Your task to perform on an android device: turn off location history Image 0: 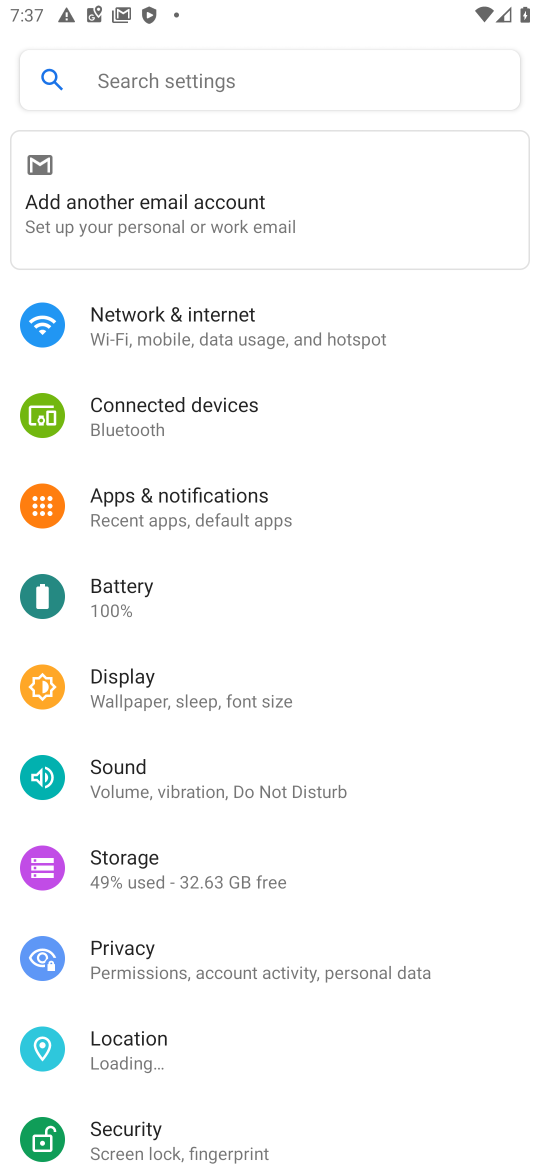
Step 0: press home button
Your task to perform on an android device: turn off location history Image 1: 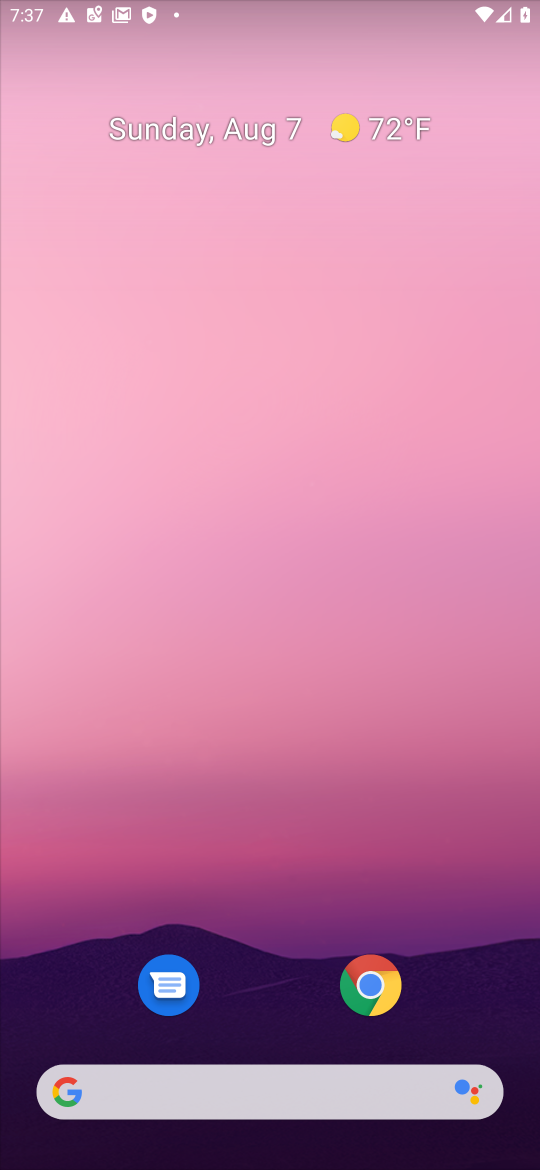
Step 1: drag from (229, 1032) to (316, 361)
Your task to perform on an android device: turn off location history Image 2: 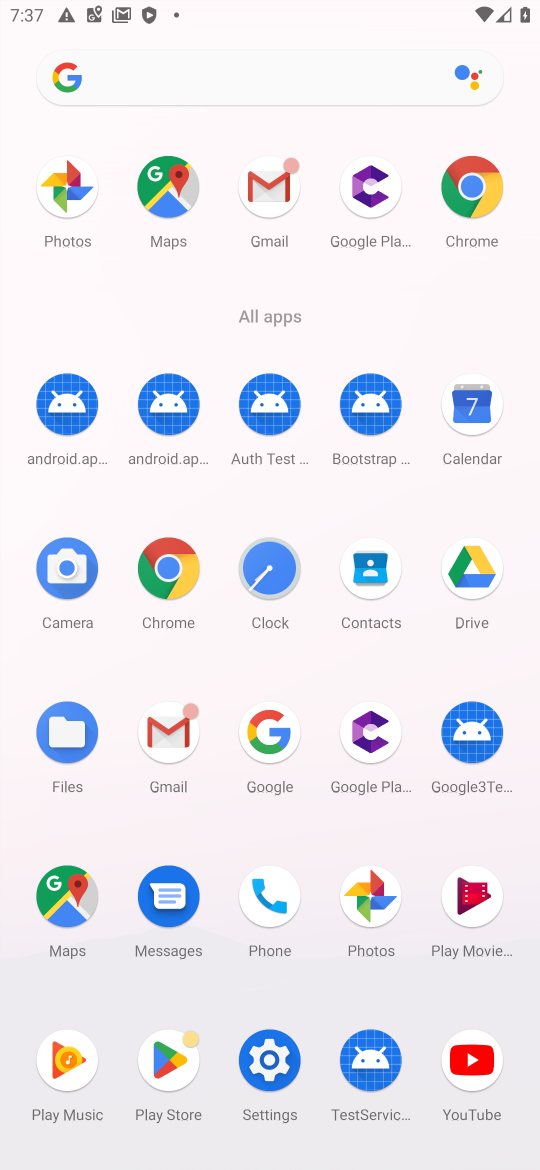
Step 2: click (274, 1082)
Your task to perform on an android device: turn off location history Image 3: 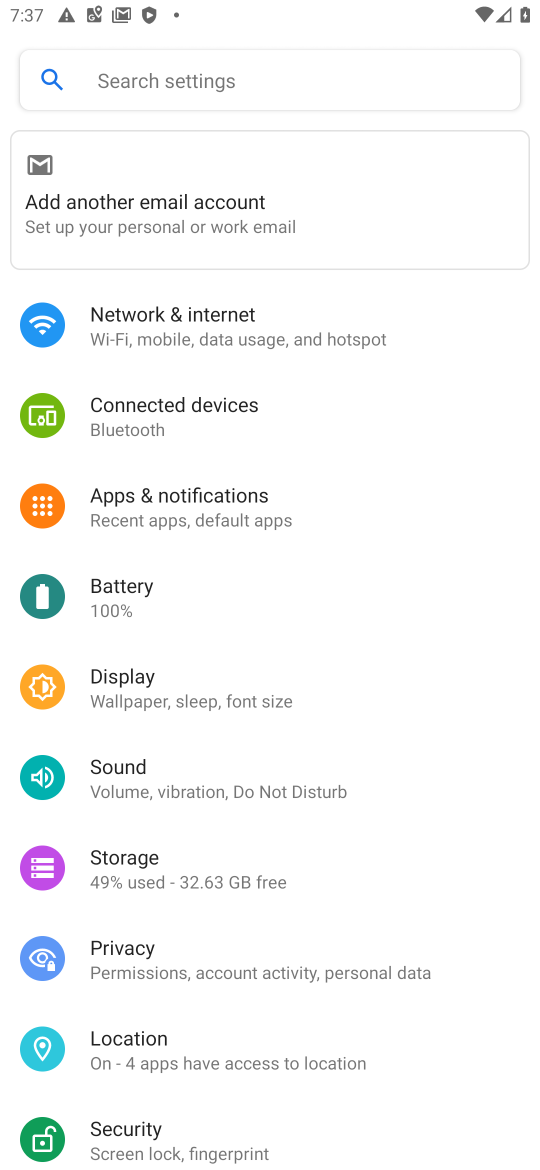
Step 3: click (145, 1062)
Your task to perform on an android device: turn off location history Image 4: 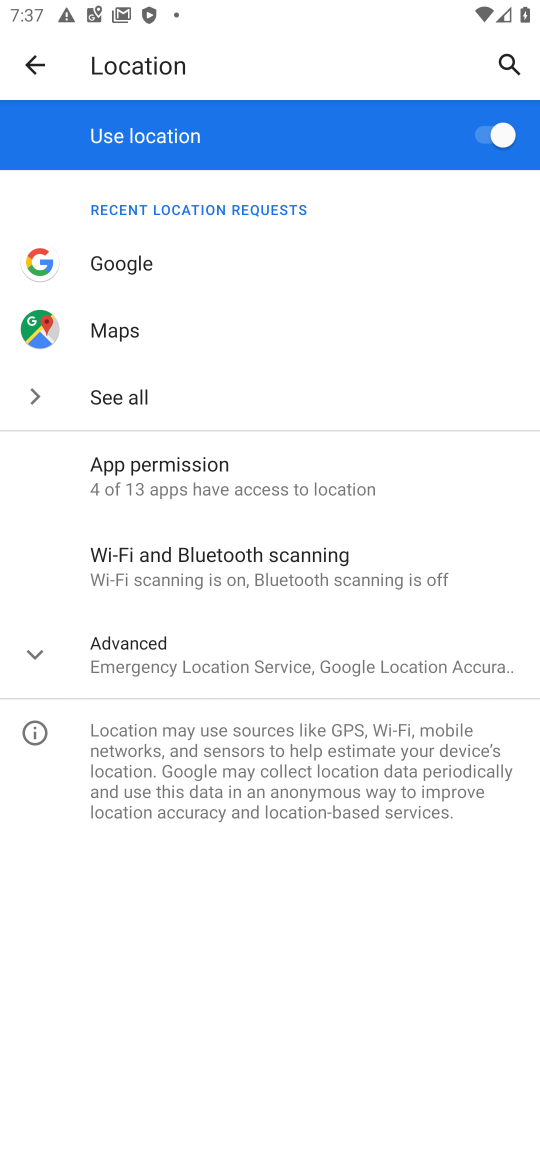
Step 4: click (201, 650)
Your task to perform on an android device: turn off location history Image 5: 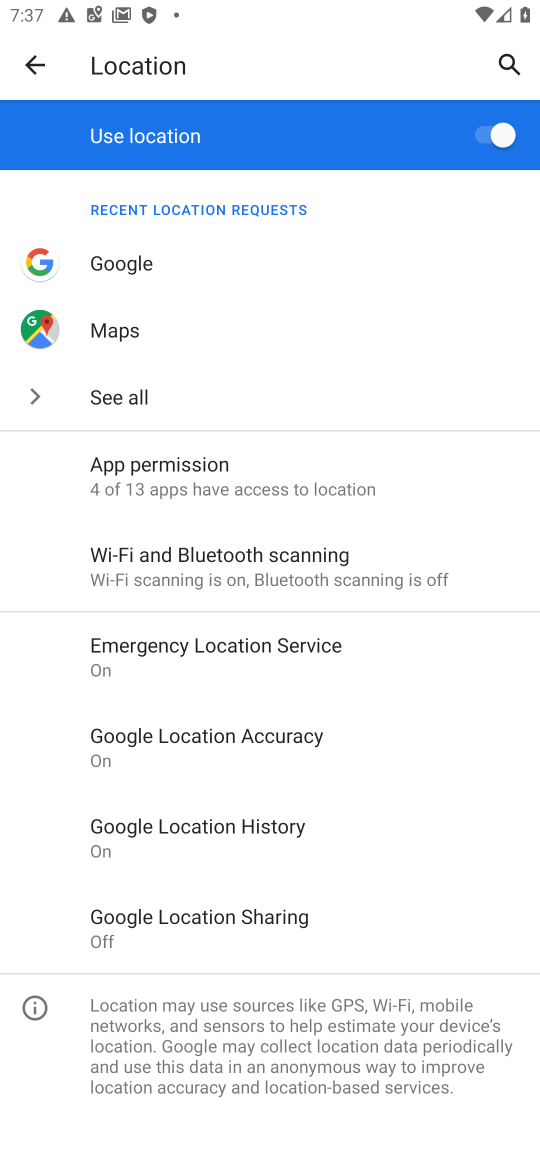
Step 5: click (243, 836)
Your task to perform on an android device: turn off location history Image 6: 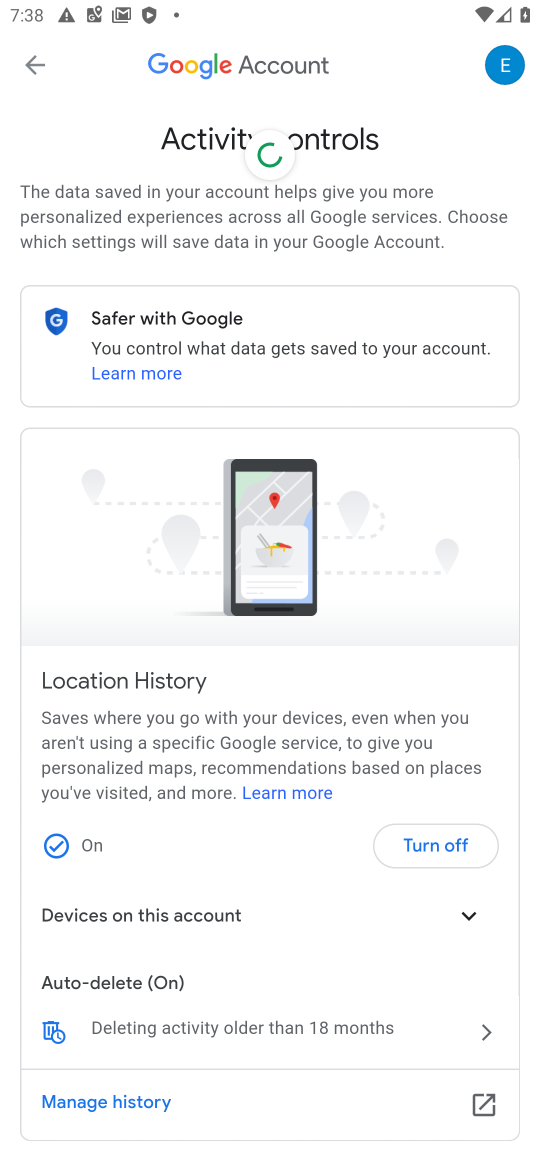
Step 6: click (458, 841)
Your task to perform on an android device: turn off location history Image 7: 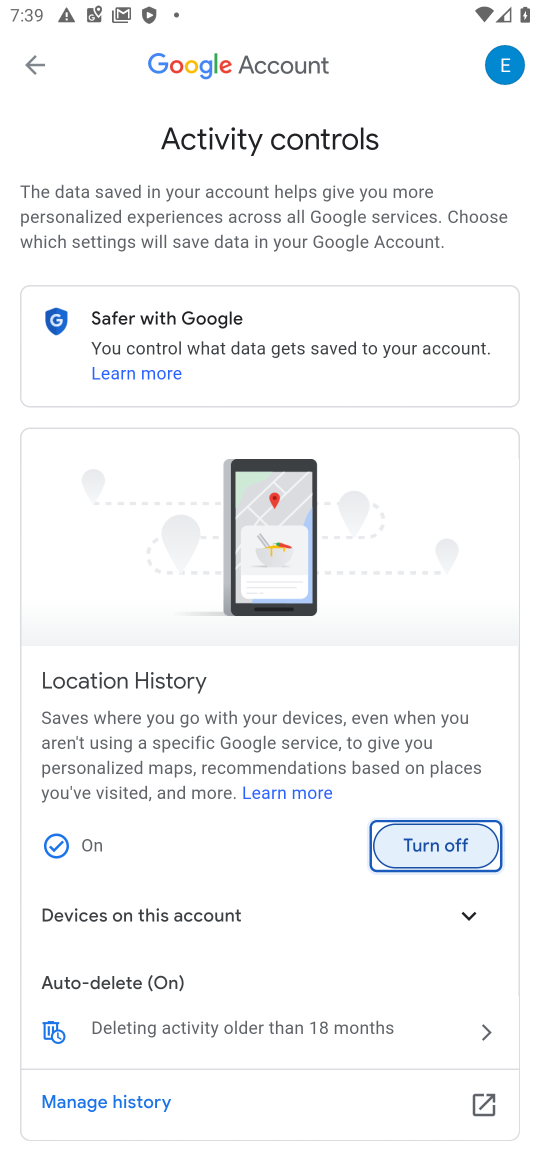
Step 7: task complete